Your task to perform on an android device: Open wifi settings Image 0: 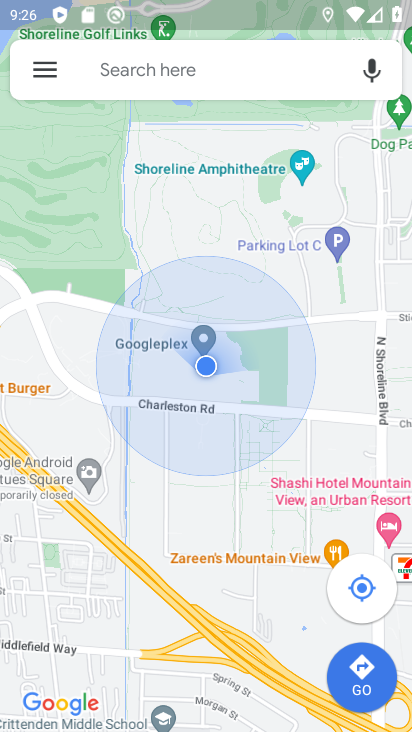
Step 0: press home button
Your task to perform on an android device: Open wifi settings Image 1: 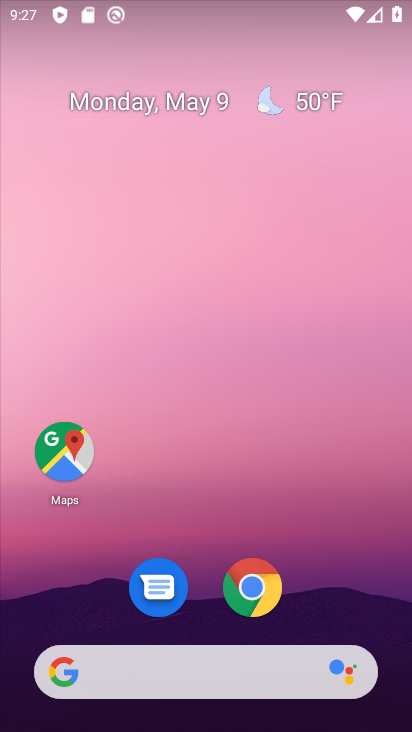
Step 1: drag from (208, 718) to (208, 193)
Your task to perform on an android device: Open wifi settings Image 2: 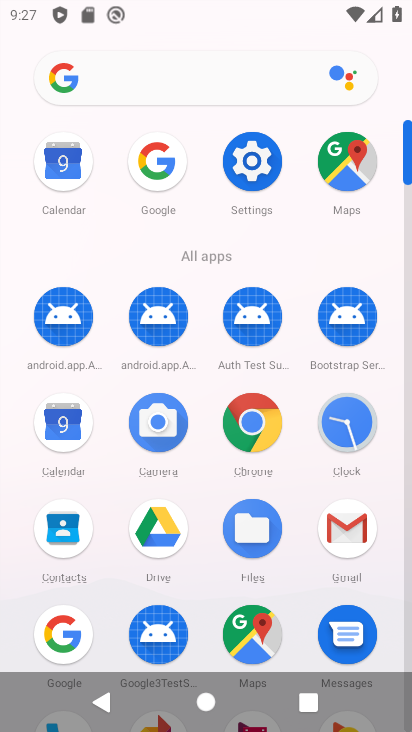
Step 2: click (261, 168)
Your task to perform on an android device: Open wifi settings Image 3: 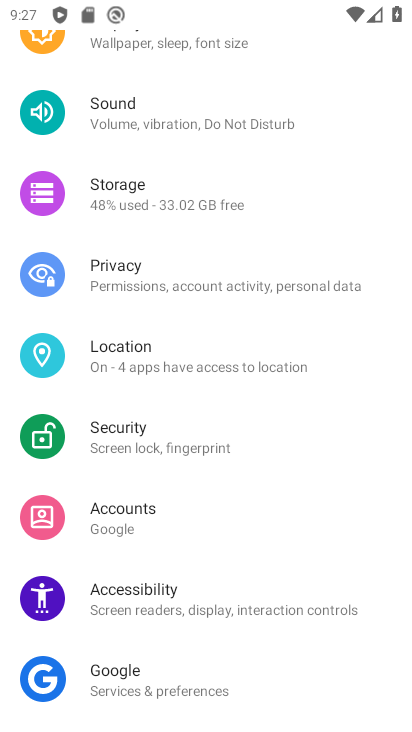
Step 3: drag from (210, 105) to (206, 577)
Your task to perform on an android device: Open wifi settings Image 4: 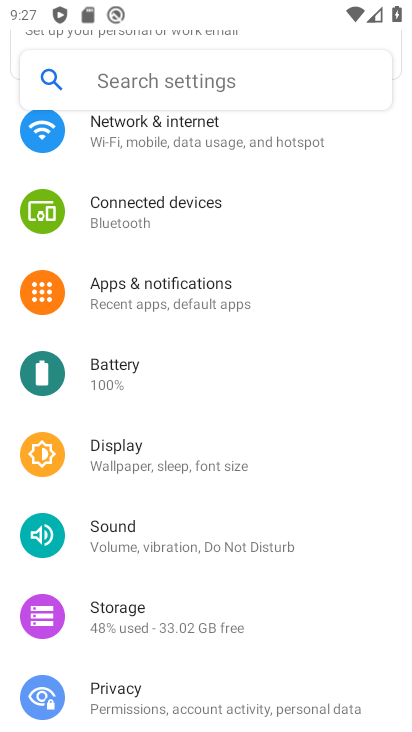
Step 4: drag from (237, 161) to (237, 502)
Your task to perform on an android device: Open wifi settings Image 5: 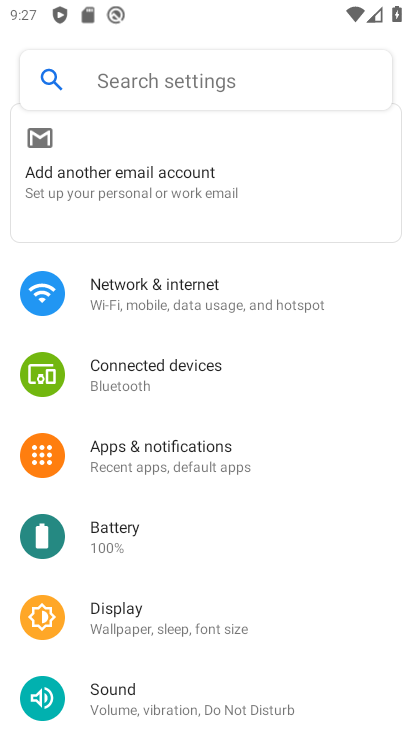
Step 5: click (136, 304)
Your task to perform on an android device: Open wifi settings Image 6: 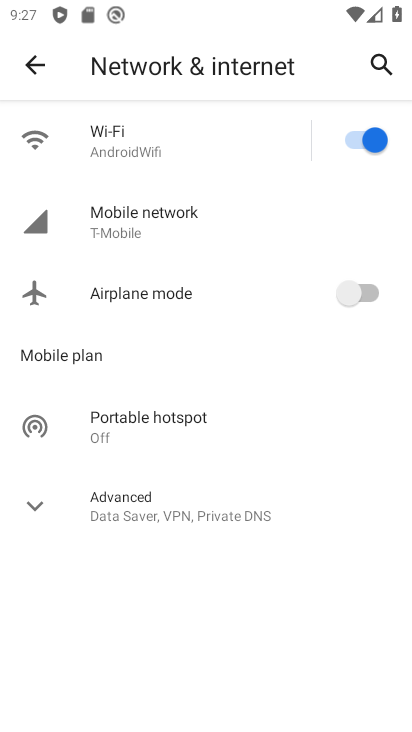
Step 6: click (114, 136)
Your task to perform on an android device: Open wifi settings Image 7: 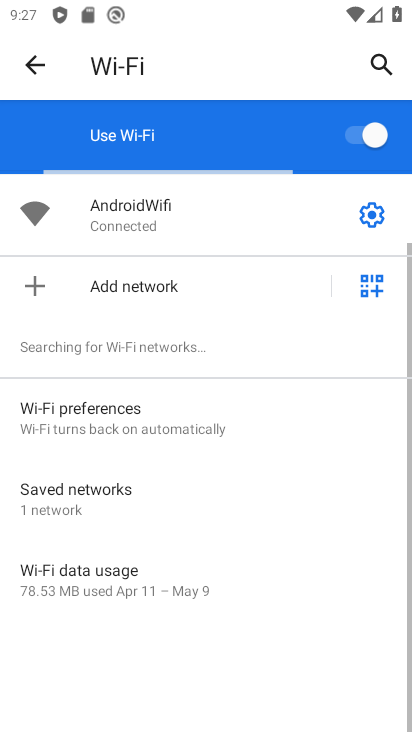
Step 7: task complete